Your task to perform on an android device: Go to network settings Image 0: 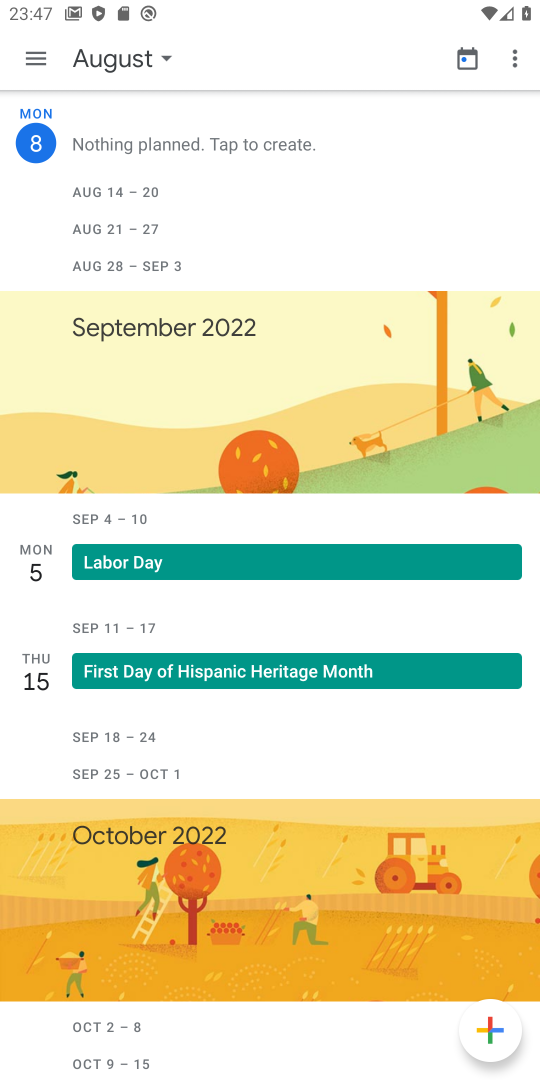
Step 0: press home button
Your task to perform on an android device: Go to network settings Image 1: 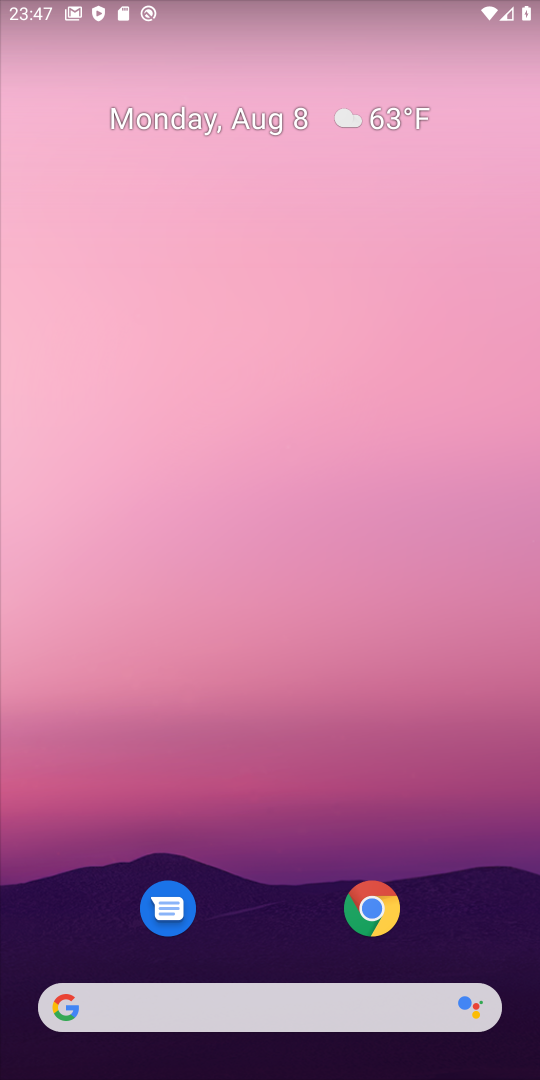
Step 1: drag from (261, 894) to (220, 156)
Your task to perform on an android device: Go to network settings Image 2: 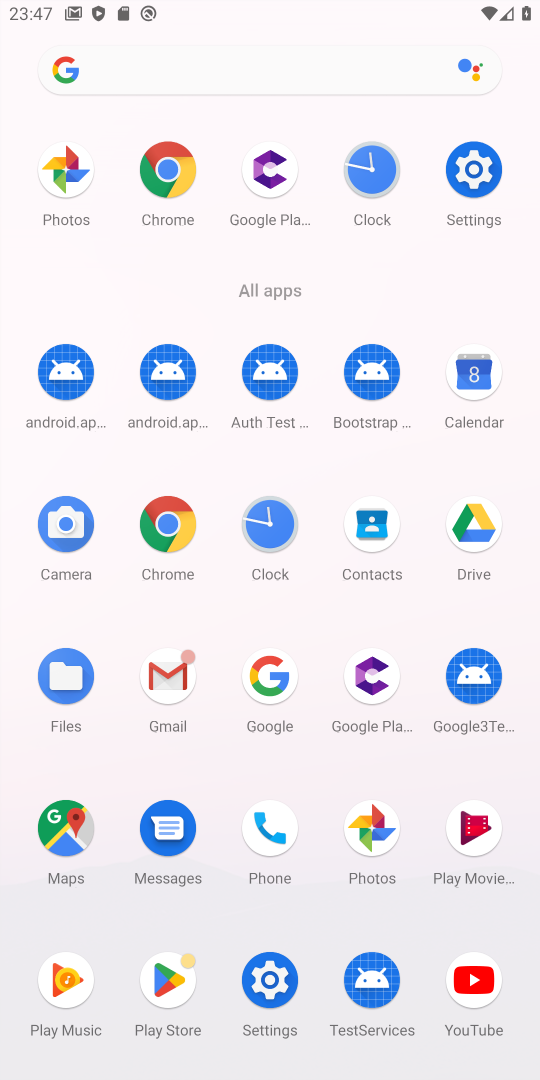
Step 2: click (490, 181)
Your task to perform on an android device: Go to network settings Image 3: 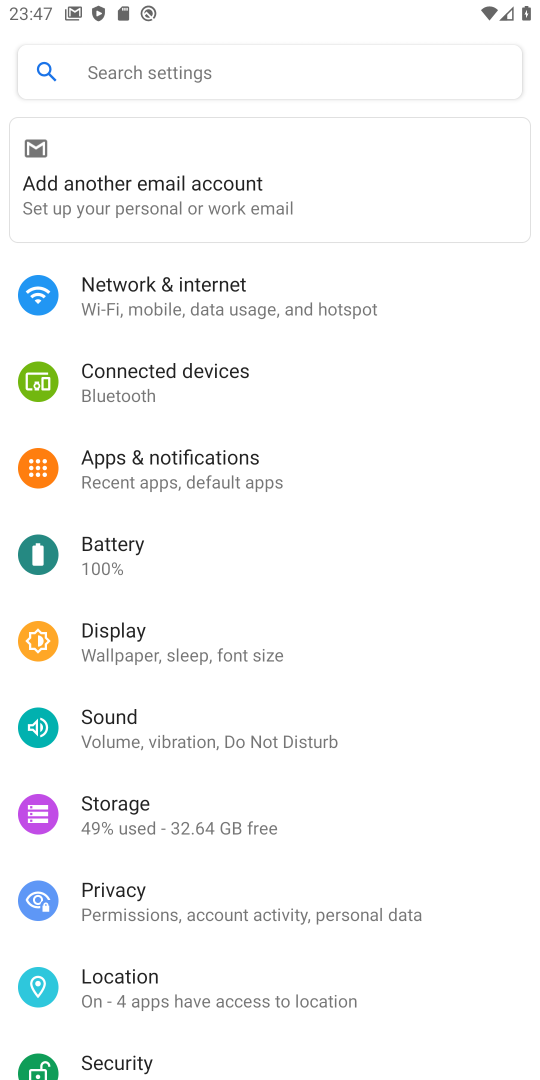
Step 3: click (394, 177)
Your task to perform on an android device: Go to network settings Image 4: 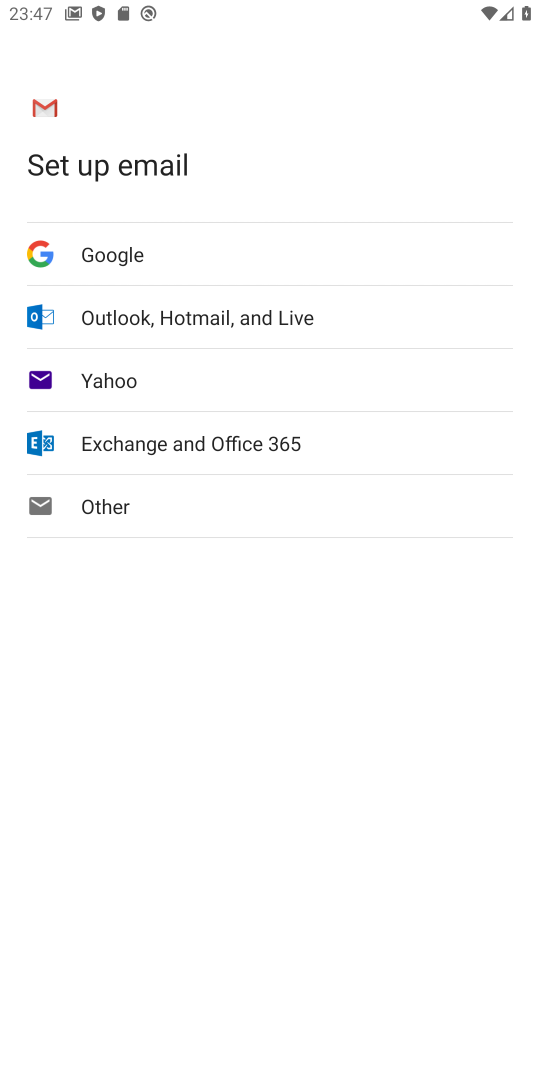
Step 4: press home button
Your task to perform on an android device: Go to network settings Image 5: 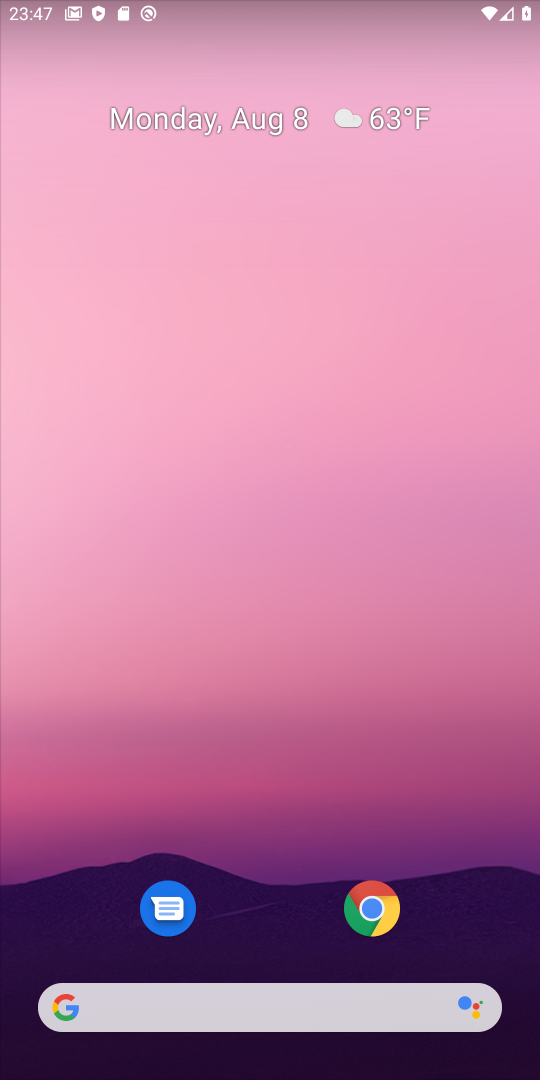
Step 5: drag from (249, 889) to (181, 172)
Your task to perform on an android device: Go to network settings Image 6: 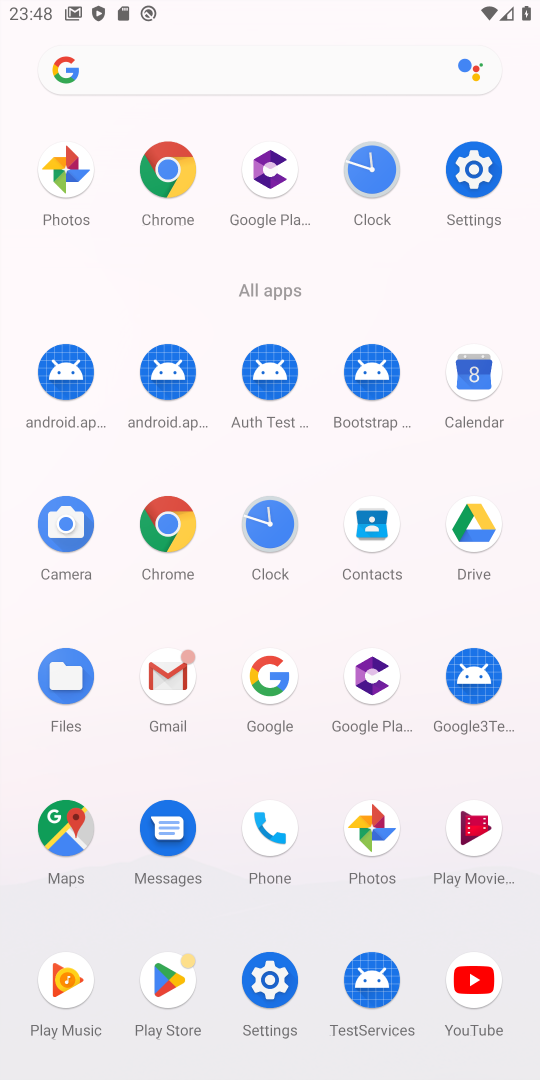
Step 6: click (453, 171)
Your task to perform on an android device: Go to network settings Image 7: 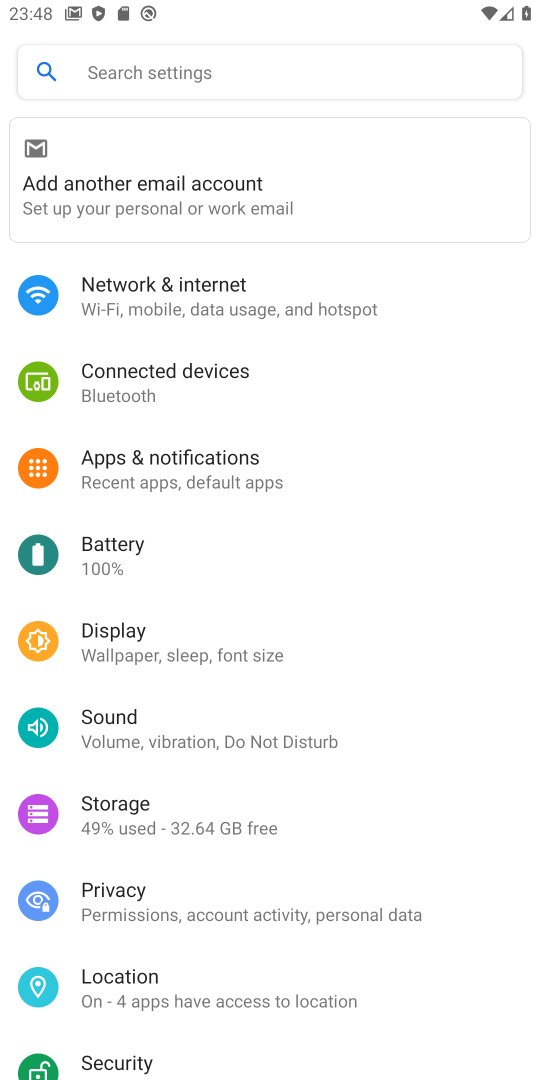
Step 7: click (197, 301)
Your task to perform on an android device: Go to network settings Image 8: 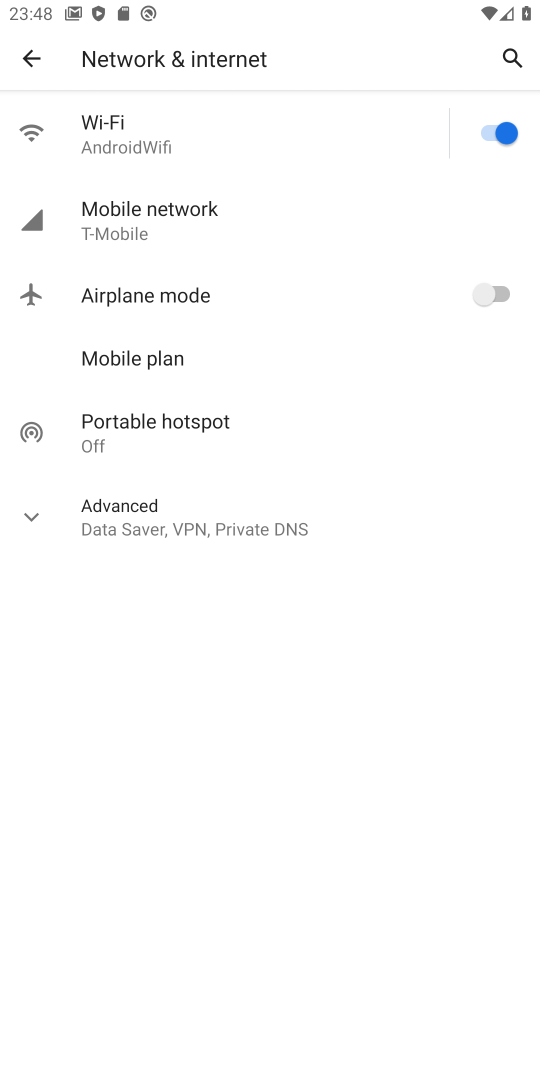
Step 8: task complete